Your task to perform on an android device: toggle notifications settings in the gmail app Image 0: 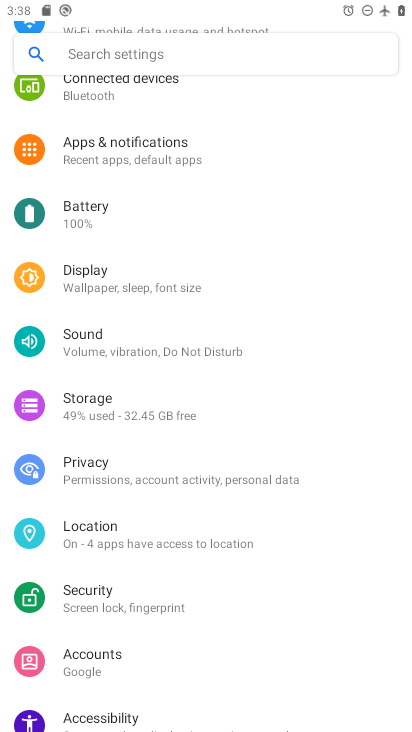
Step 0: press home button
Your task to perform on an android device: toggle notifications settings in the gmail app Image 1: 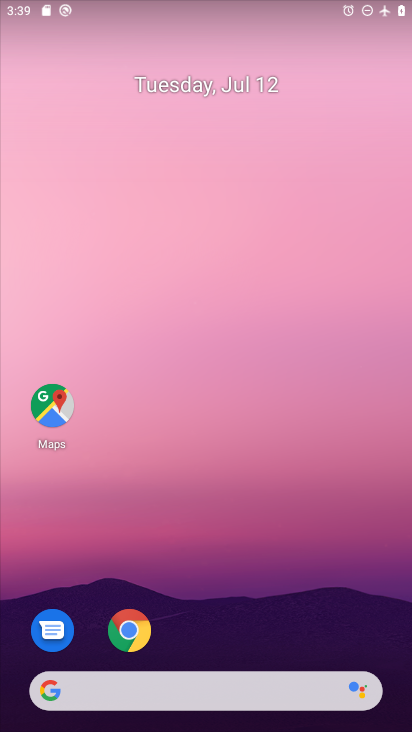
Step 1: drag from (210, 612) to (210, 145)
Your task to perform on an android device: toggle notifications settings in the gmail app Image 2: 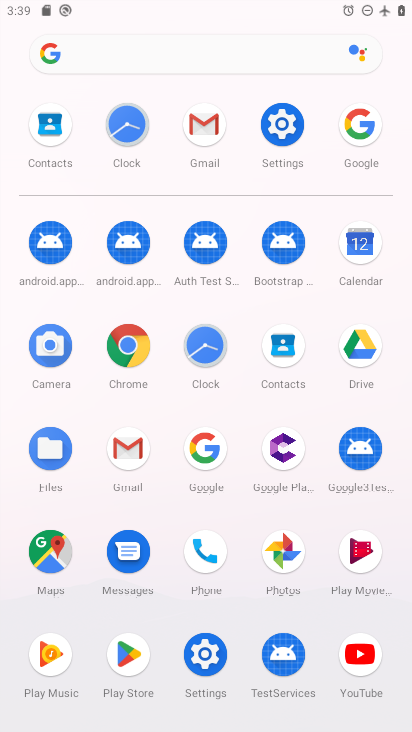
Step 2: click (216, 131)
Your task to perform on an android device: toggle notifications settings in the gmail app Image 3: 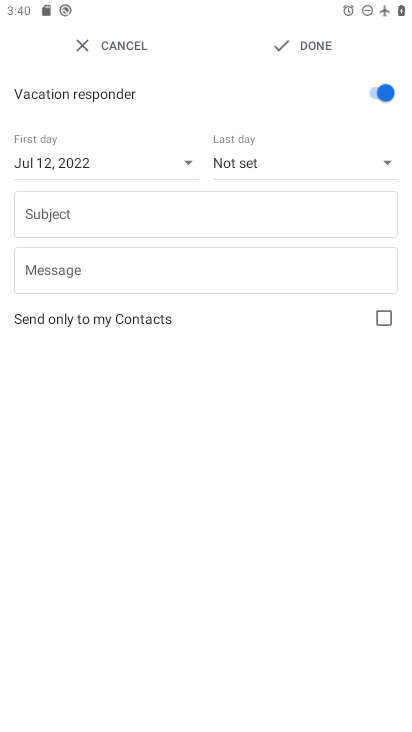
Step 3: press back button
Your task to perform on an android device: toggle notifications settings in the gmail app Image 4: 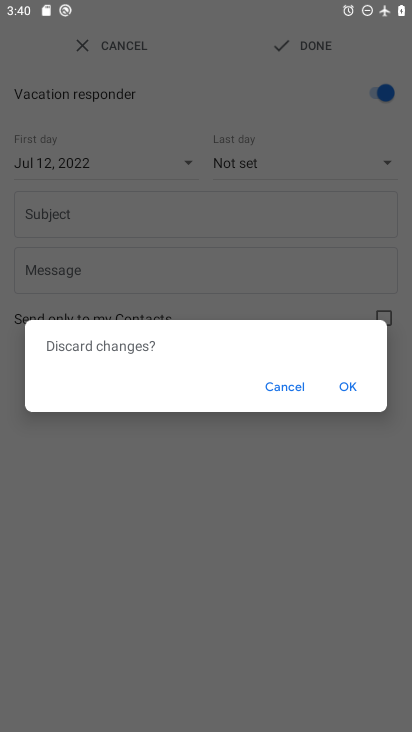
Step 4: click (347, 387)
Your task to perform on an android device: toggle notifications settings in the gmail app Image 5: 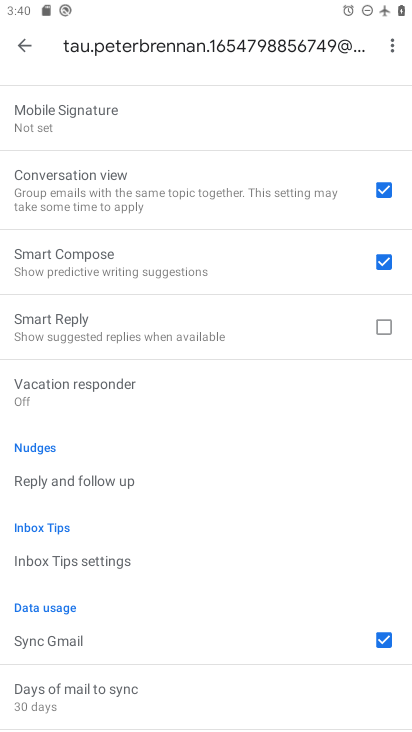
Step 5: drag from (188, 300) to (195, 630)
Your task to perform on an android device: toggle notifications settings in the gmail app Image 6: 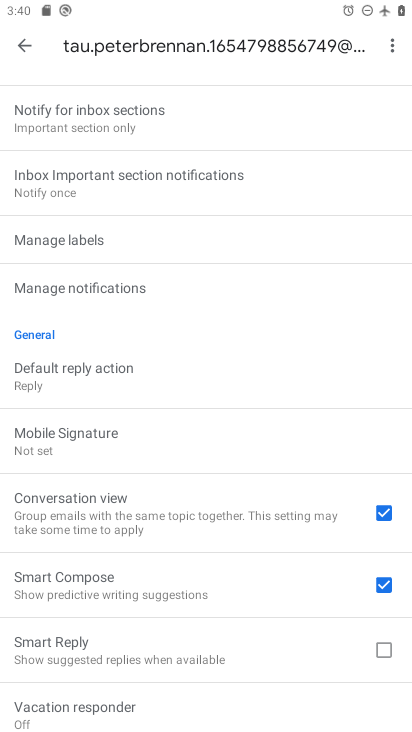
Step 6: click (149, 290)
Your task to perform on an android device: toggle notifications settings in the gmail app Image 7: 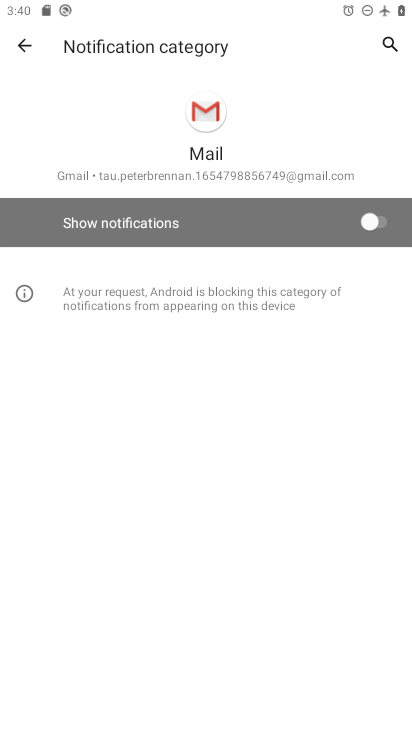
Step 7: click (385, 223)
Your task to perform on an android device: toggle notifications settings in the gmail app Image 8: 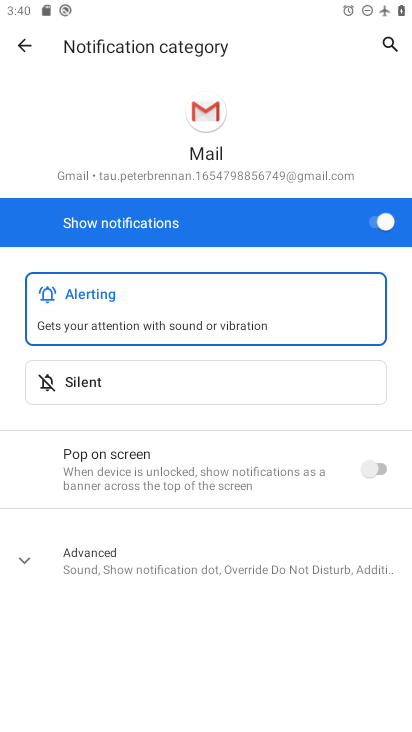
Step 8: task complete